Your task to perform on an android device: change keyboard looks Image 0: 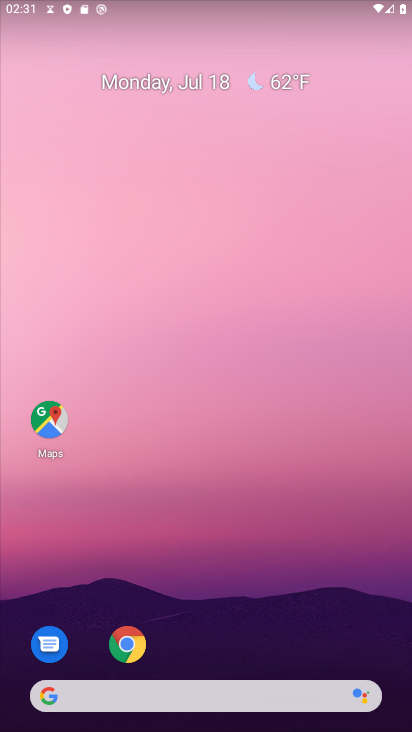
Step 0: drag from (251, 632) to (198, 222)
Your task to perform on an android device: change keyboard looks Image 1: 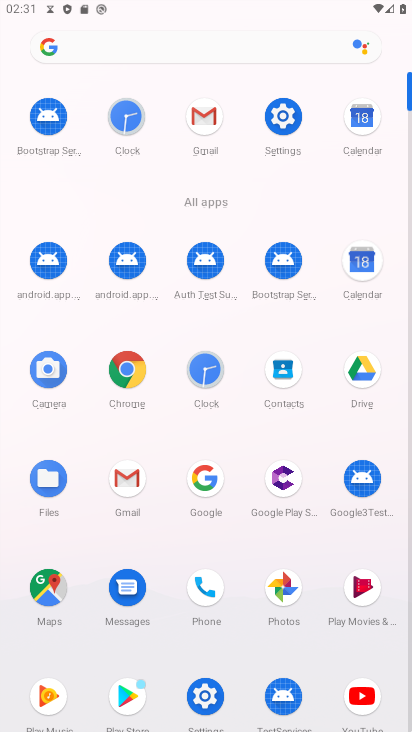
Step 1: click (206, 683)
Your task to perform on an android device: change keyboard looks Image 2: 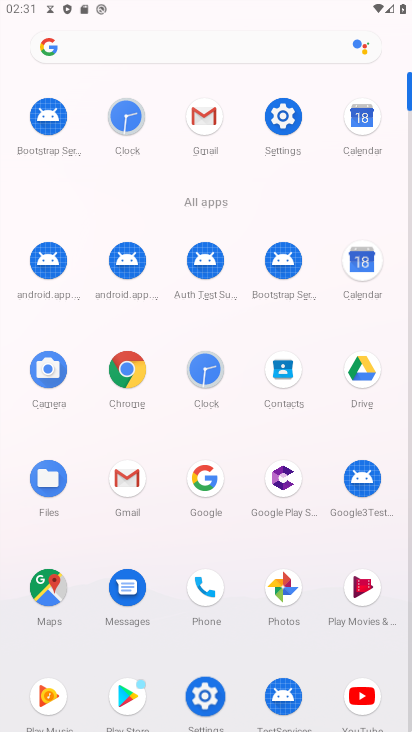
Step 2: click (206, 683)
Your task to perform on an android device: change keyboard looks Image 3: 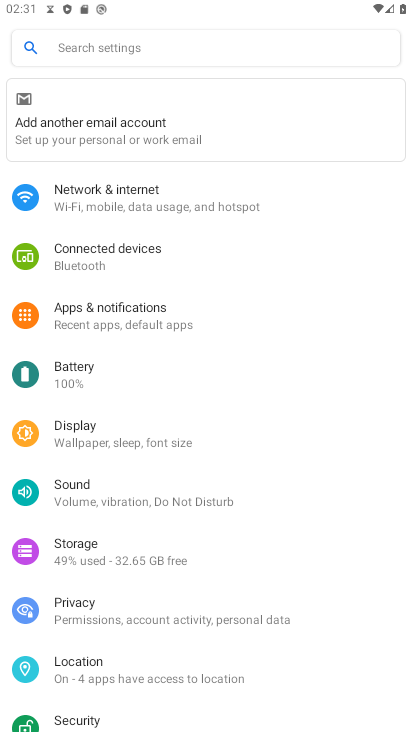
Step 3: click (207, 682)
Your task to perform on an android device: change keyboard looks Image 4: 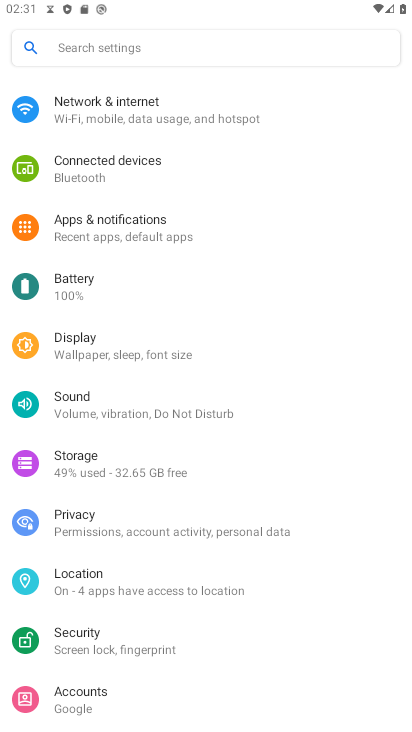
Step 4: click (207, 683)
Your task to perform on an android device: change keyboard looks Image 5: 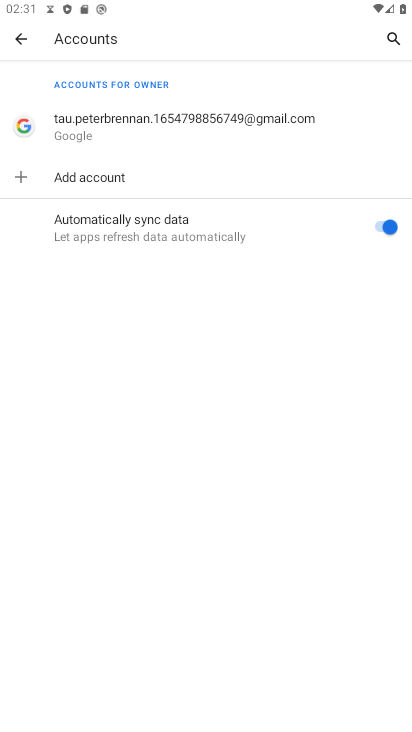
Step 5: drag from (186, 573) to (183, 271)
Your task to perform on an android device: change keyboard looks Image 6: 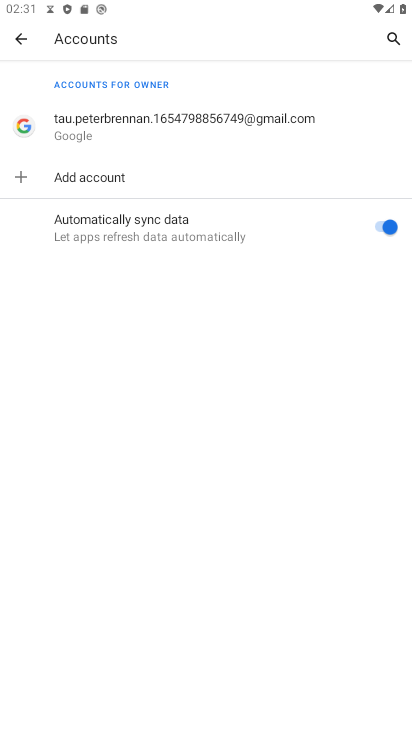
Step 6: click (17, 33)
Your task to perform on an android device: change keyboard looks Image 7: 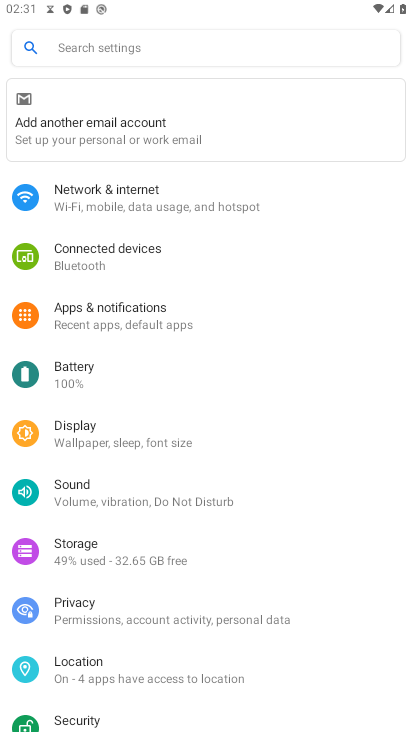
Step 7: drag from (131, 624) to (147, 353)
Your task to perform on an android device: change keyboard looks Image 8: 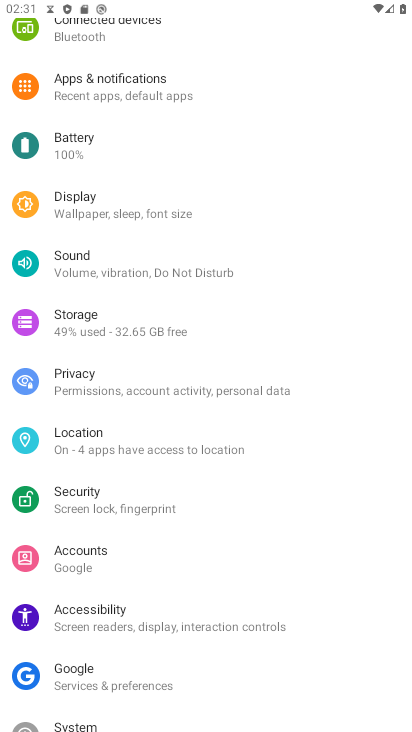
Step 8: drag from (184, 608) to (184, 392)
Your task to perform on an android device: change keyboard looks Image 9: 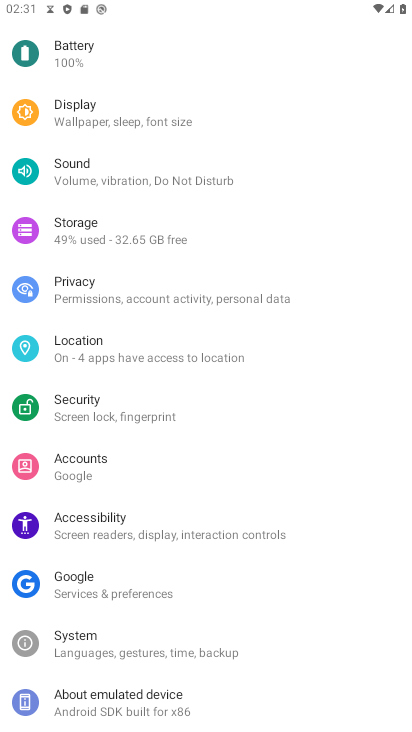
Step 9: drag from (117, 640) to (115, 371)
Your task to perform on an android device: change keyboard looks Image 10: 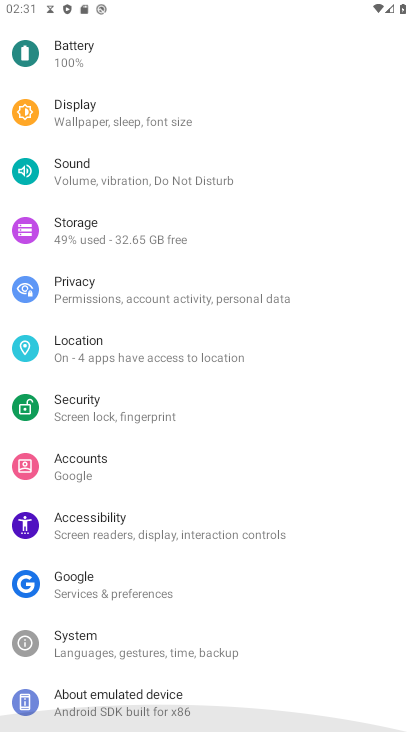
Step 10: drag from (162, 603) to (158, 362)
Your task to perform on an android device: change keyboard looks Image 11: 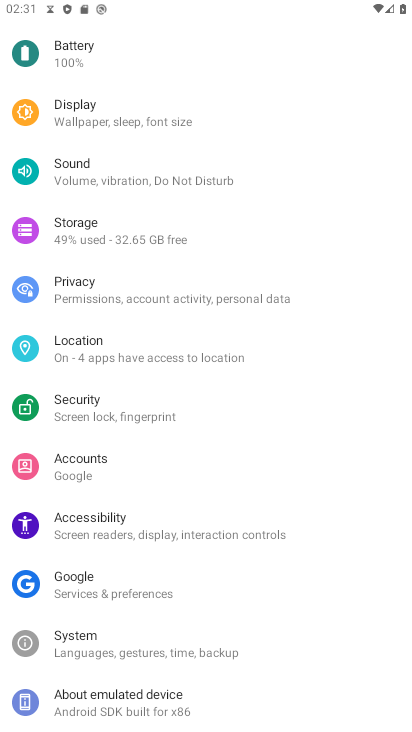
Step 11: click (83, 637)
Your task to perform on an android device: change keyboard looks Image 12: 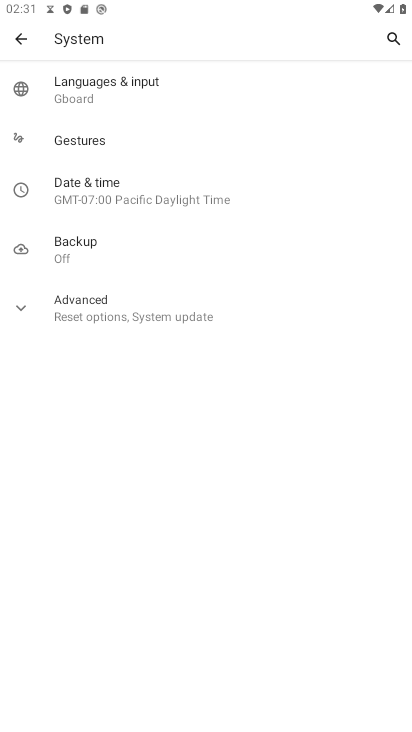
Step 12: click (79, 103)
Your task to perform on an android device: change keyboard looks Image 13: 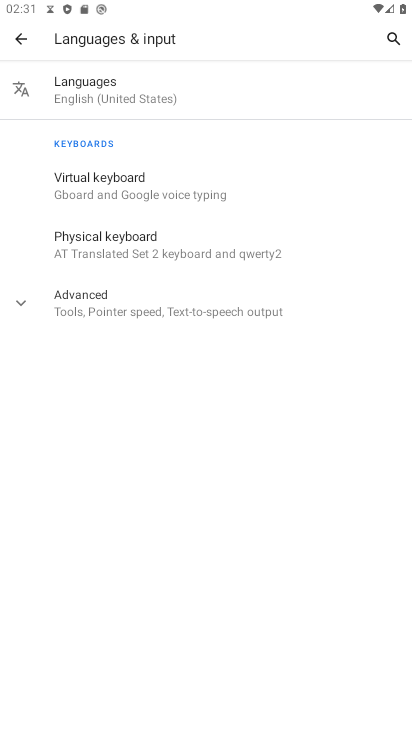
Step 13: click (97, 182)
Your task to perform on an android device: change keyboard looks Image 14: 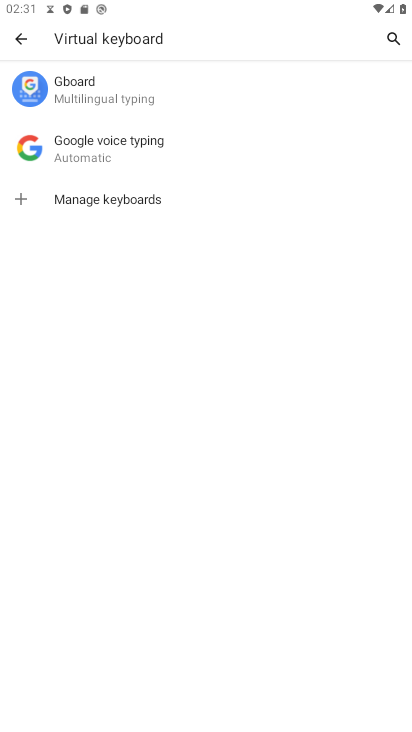
Step 14: click (79, 83)
Your task to perform on an android device: change keyboard looks Image 15: 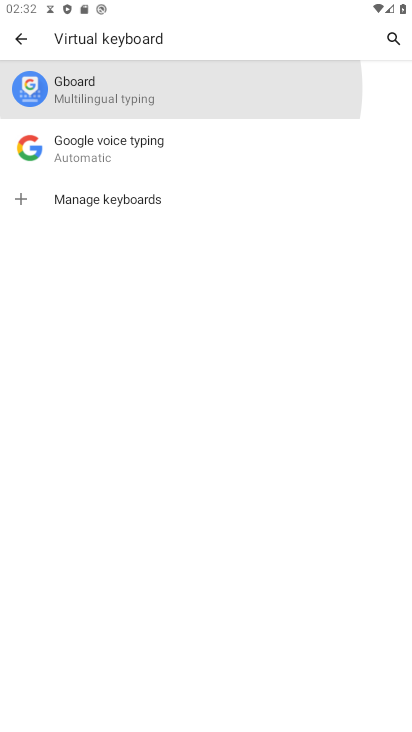
Step 15: click (78, 83)
Your task to perform on an android device: change keyboard looks Image 16: 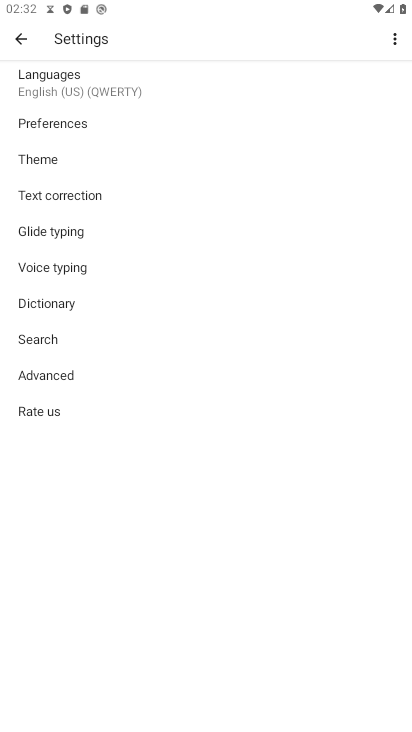
Step 16: click (45, 157)
Your task to perform on an android device: change keyboard looks Image 17: 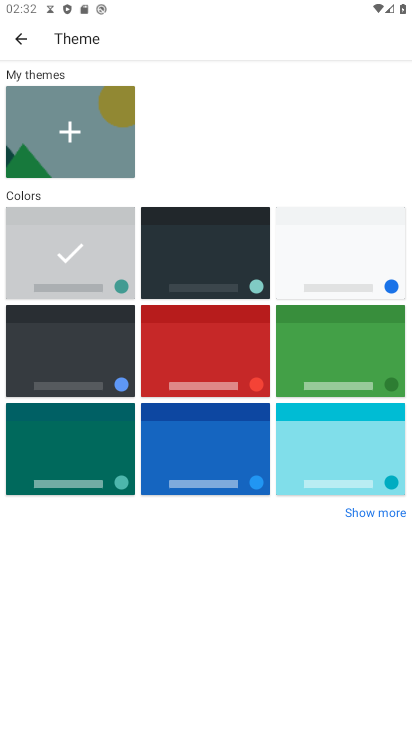
Step 17: click (40, 320)
Your task to perform on an android device: change keyboard looks Image 18: 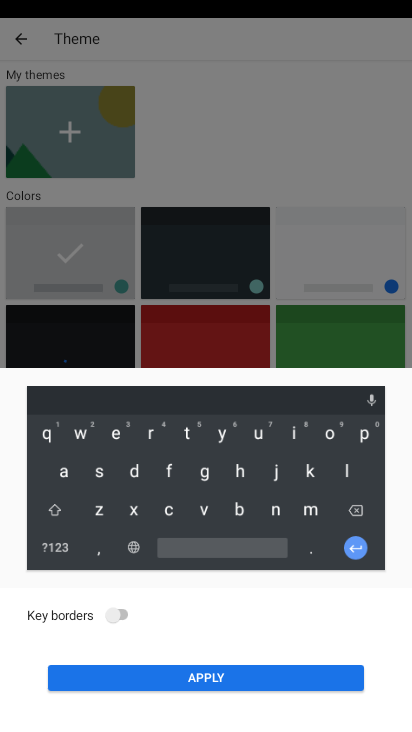
Step 18: click (50, 321)
Your task to perform on an android device: change keyboard looks Image 19: 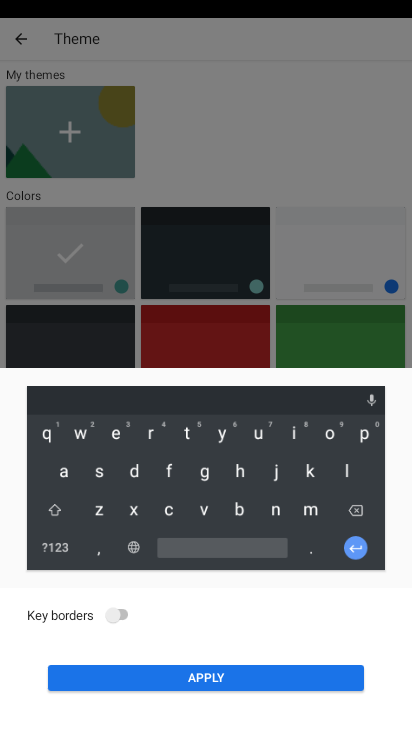
Step 19: click (50, 321)
Your task to perform on an android device: change keyboard looks Image 20: 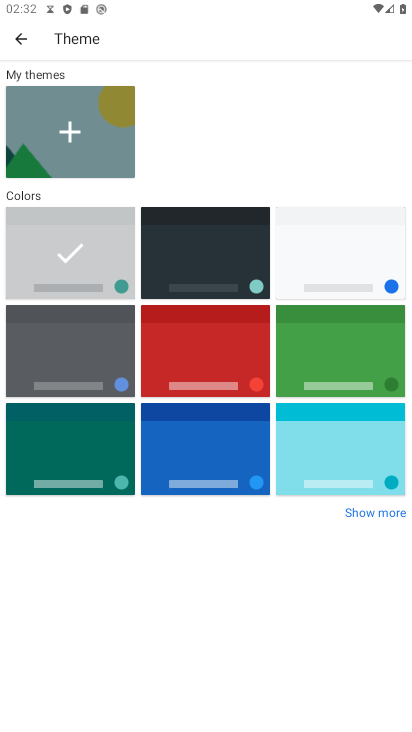
Step 20: task complete